Your task to perform on an android device: Open maps Image 0: 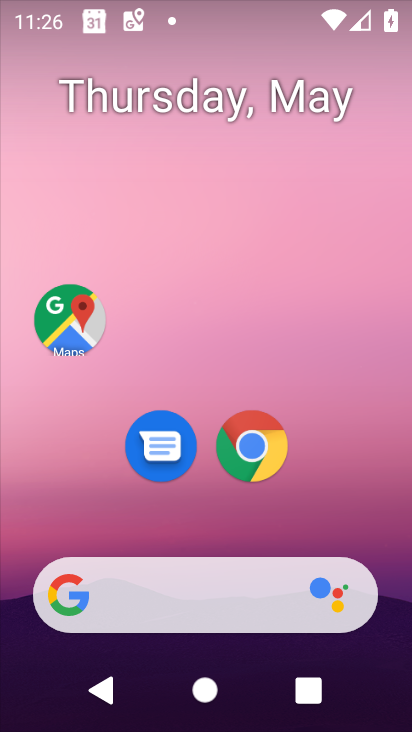
Step 0: drag from (326, 620) to (290, 67)
Your task to perform on an android device: Open maps Image 1: 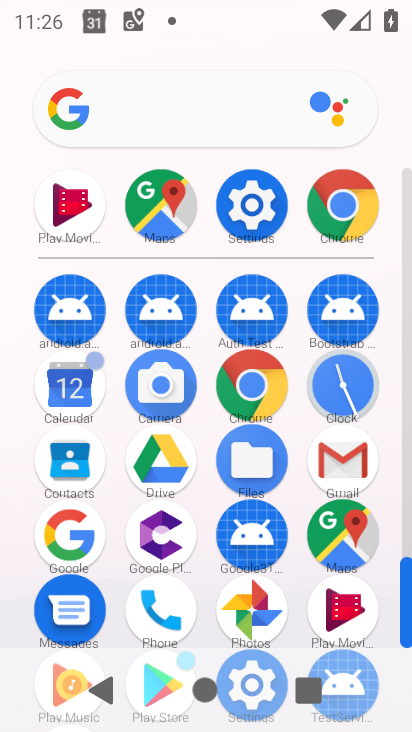
Step 1: click (356, 526)
Your task to perform on an android device: Open maps Image 2: 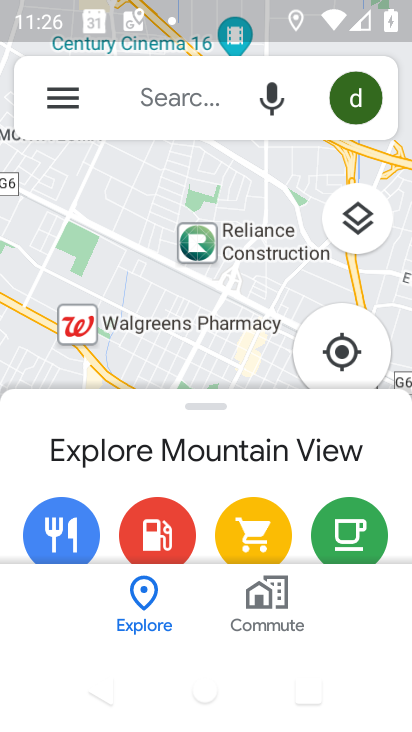
Step 2: task complete